Your task to perform on an android device: Go to wifi settings Image 0: 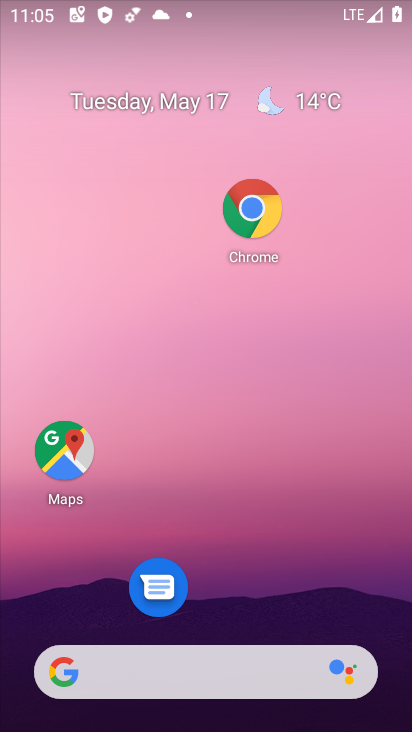
Step 0: drag from (306, 546) to (306, 388)
Your task to perform on an android device: Go to wifi settings Image 1: 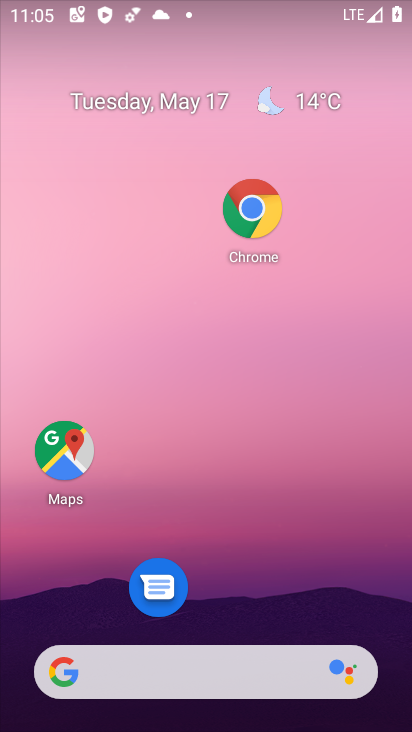
Step 1: drag from (318, 554) to (316, 23)
Your task to perform on an android device: Go to wifi settings Image 2: 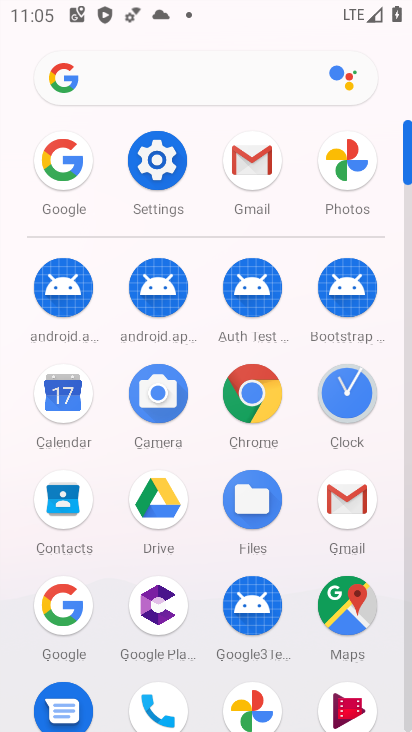
Step 2: click (173, 164)
Your task to perform on an android device: Go to wifi settings Image 3: 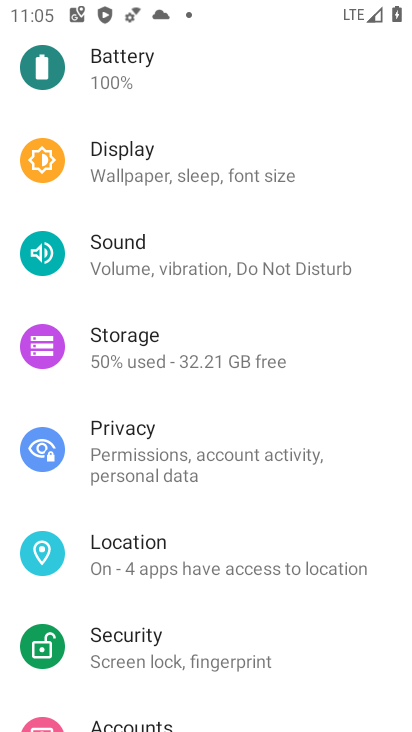
Step 3: drag from (260, 148) to (361, 512)
Your task to perform on an android device: Go to wifi settings Image 4: 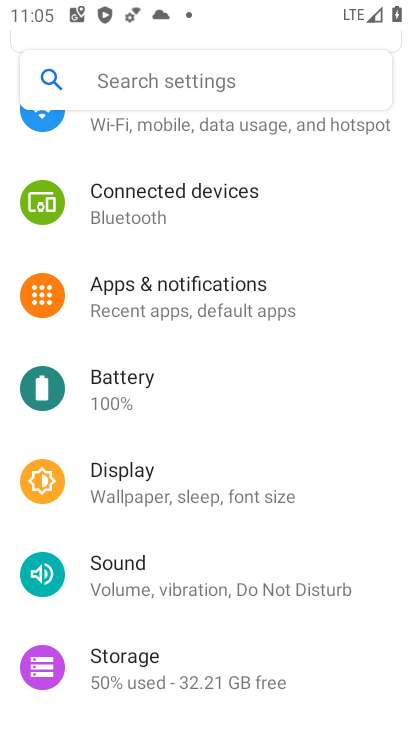
Step 4: click (289, 124)
Your task to perform on an android device: Go to wifi settings Image 5: 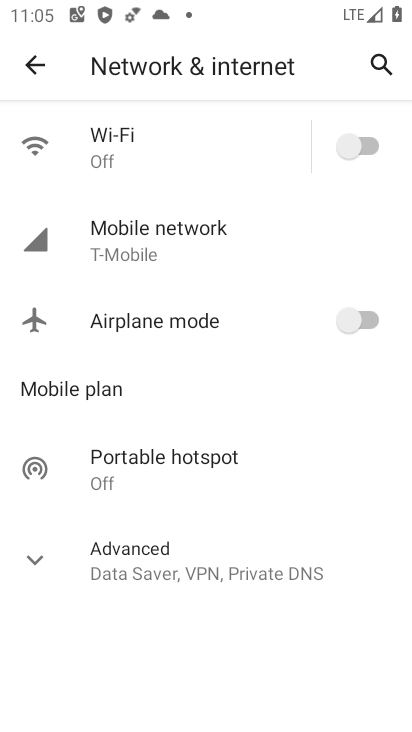
Step 5: click (149, 158)
Your task to perform on an android device: Go to wifi settings Image 6: 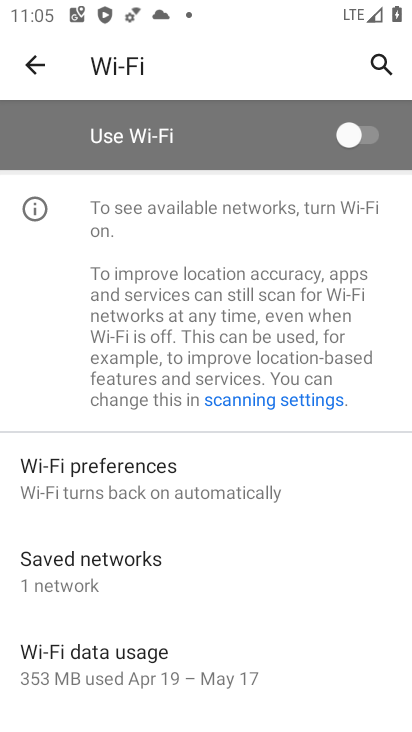
Step 6: task complete